Your task to perform on an android device: toggle show notifications on the lock screen Image 0: 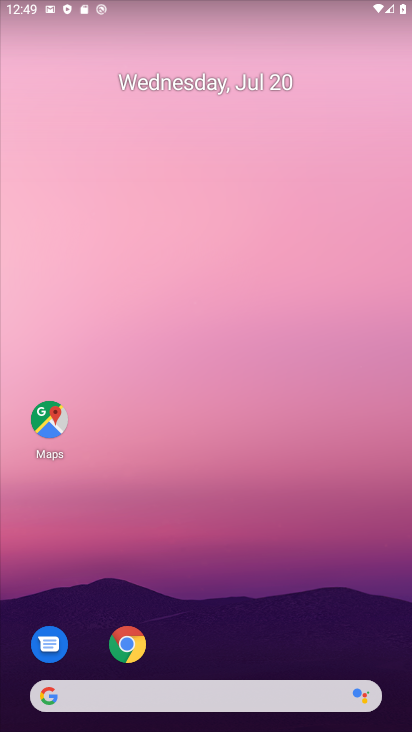
Step 0: drag from (207, 650) to (199, 195)
Your task to perform on an android device: toggle show notifications on the lock screen Image 1: 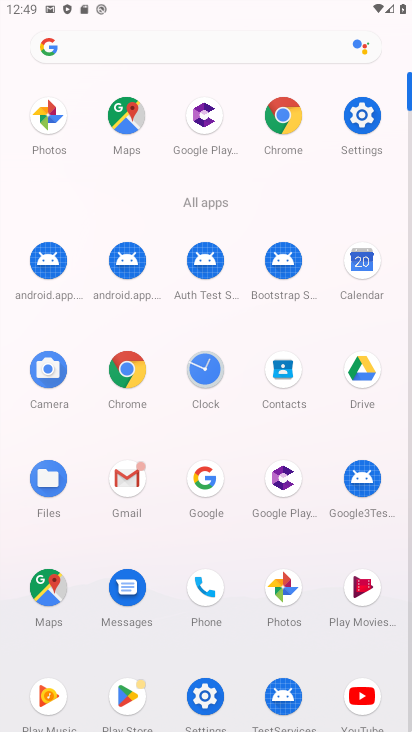
Step 1: click (206, 693)
Your task to perform on an android device: toggle show notifications on the lock screen Image 2: 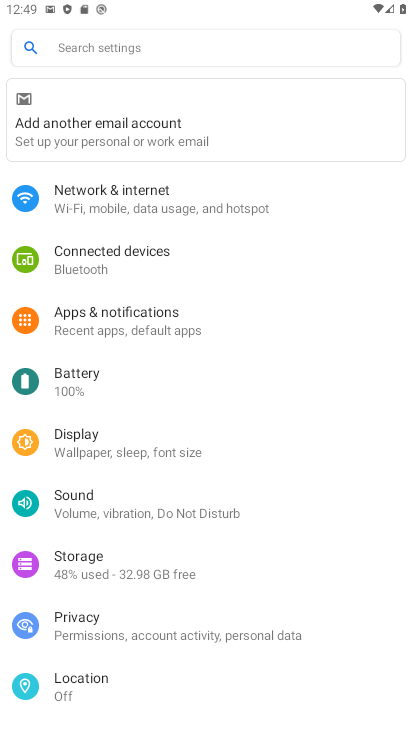
Step 2: click (146, 325)
Your task to perform on an android device: toggle show notifications on the lock screen Image 3: 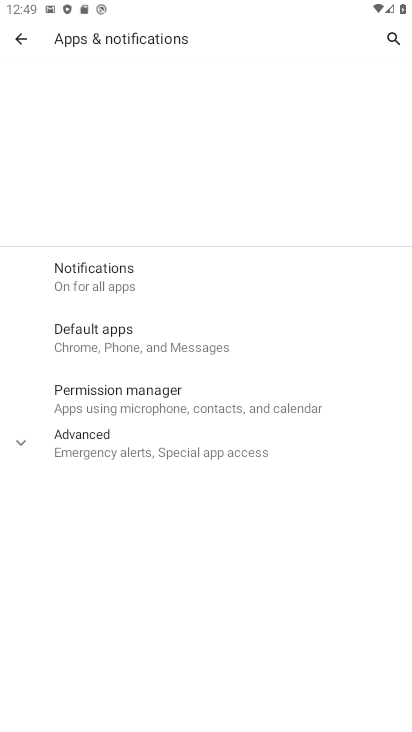
Step 3: click (110, 274)
Your task to perform on an android device: toggle show notifications on the lock screen Image 4: 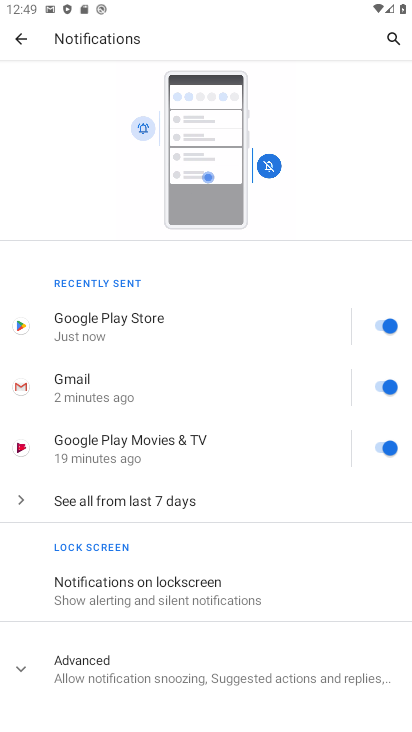
Step 4: click (157, 593)
Your task to perform on an android device: toggle show notifications on the lock screen Image 5: 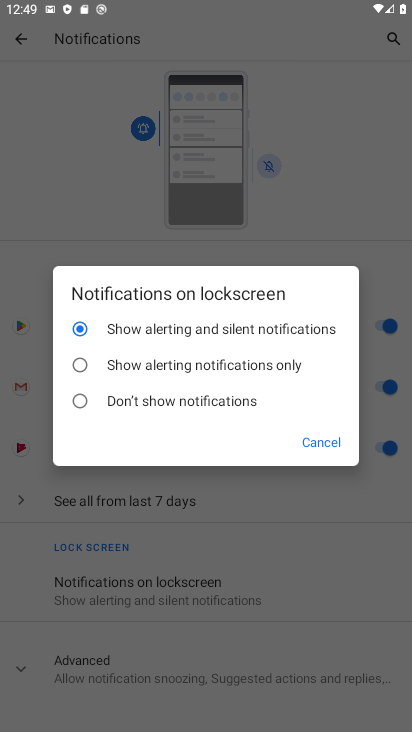
Step 5: click (83, 400)
Your task to perform on an android device: toggle show notifications on the lock screen Image 6: 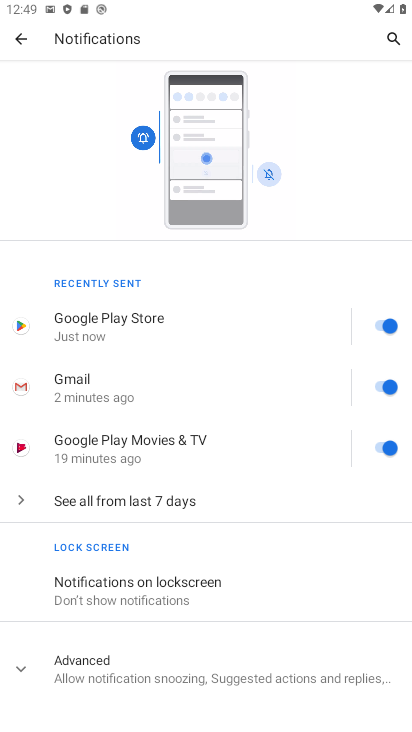
Step 6: task complete